Your task to perform on an android device: Show me popular games on the Play Store Image 0: 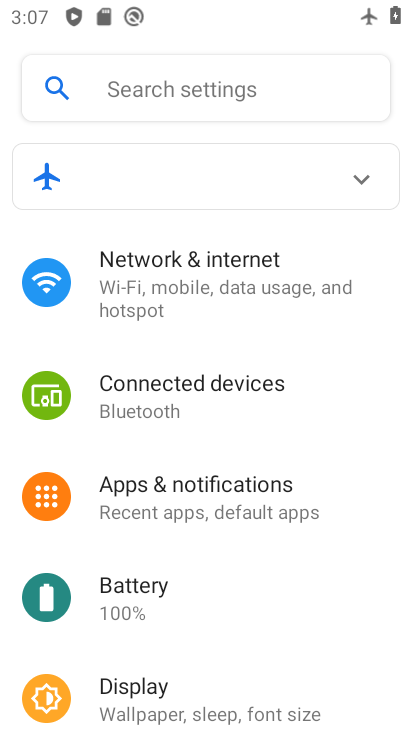
Step 0: press home button
Your task to perform on an android device: Show me popular games on the Play Store Image 1: 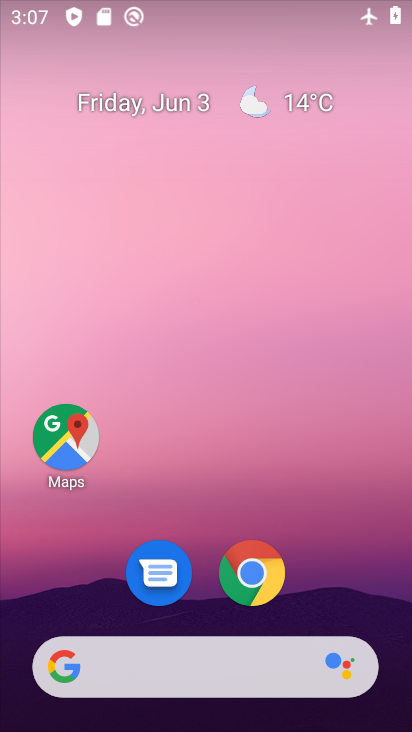
Step 1: drag from (175, 517) to (184, 454)
Your task to perform on an android device: Show me popular games on the Play Store Image 2: 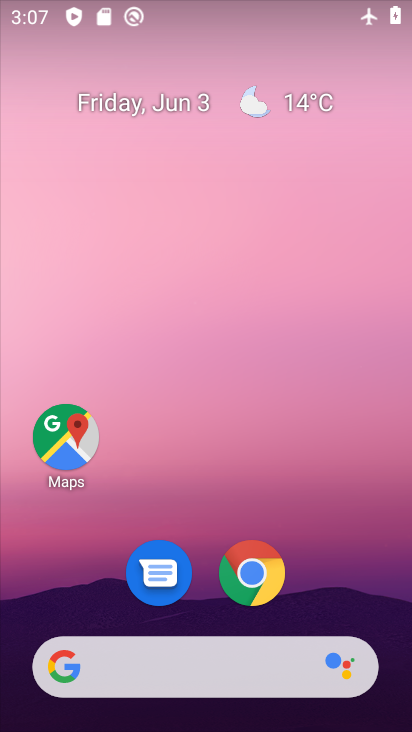
Step 2: drag from (227, 575) to (247, 339)
Your task to perform on an android device: Show me popular games on the Play Store Image 3: 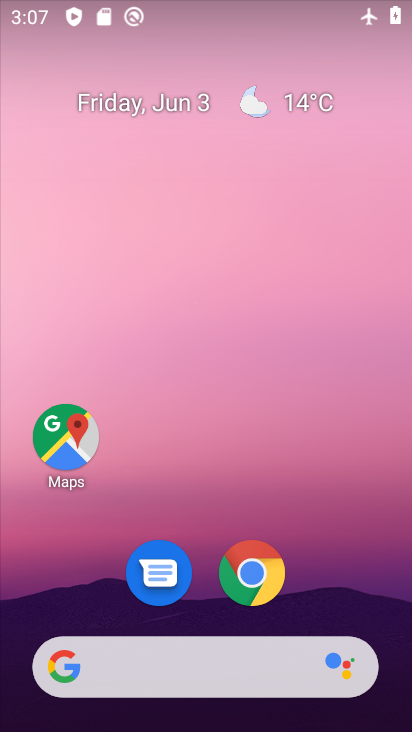
Step 3: drag from (227, 617) to (273, 54)
Your task to perform on an android device: Show me popular games on the Play Store Image 4: 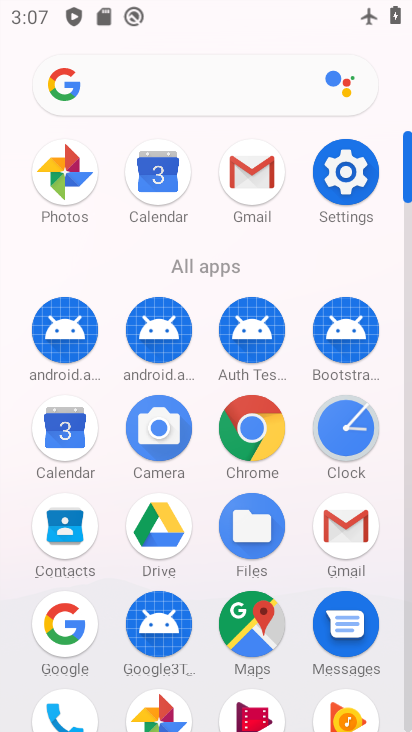
Step 4: drag from (234, 417) to (264, 251)
Your task to perform on an android device: Show me popular games on the Play Store Image 5: 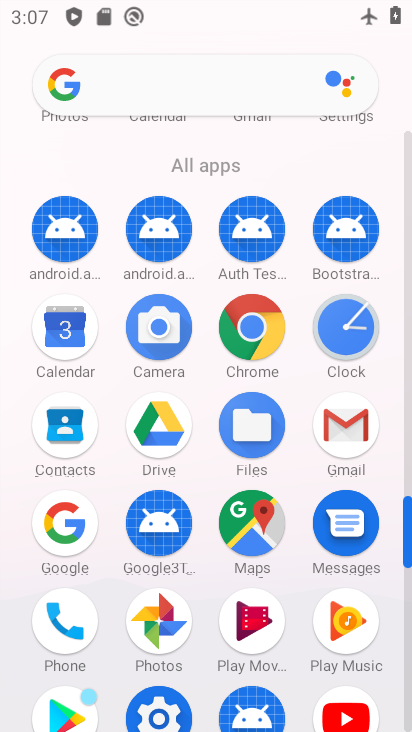
Step 5: drag from (185, 492) to (235, 226)
Your task to perform on an android device: Show me popular games on the Play Store Image 6: 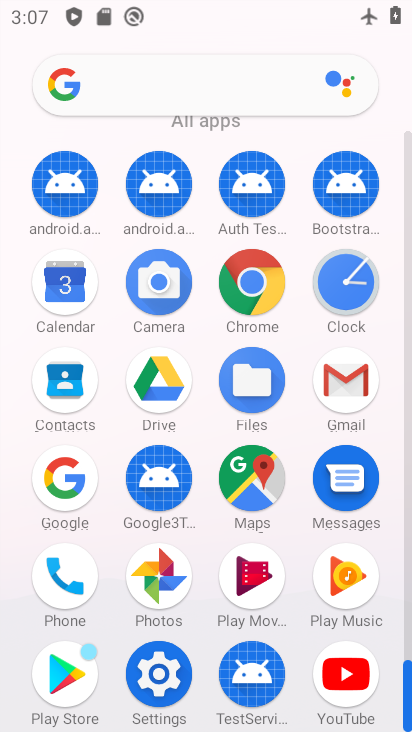
Step 6: drag from (172, 519) to (208, 295)
Your task to perform on an android device: Show me popular games on the Play Store Image 7: 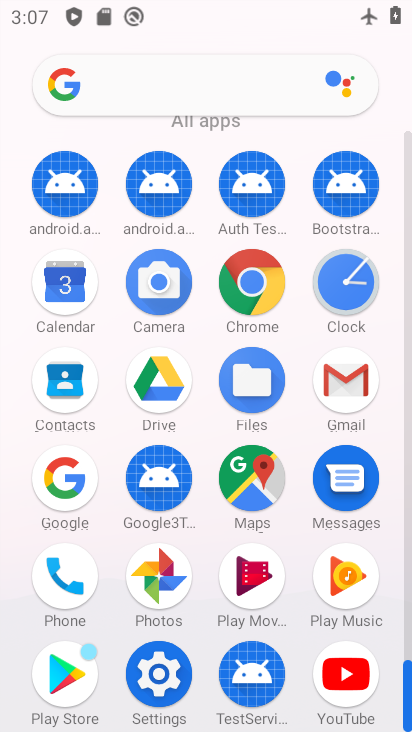
Step 7: click (70, 663)
Your task to perform on an android device: Show me popular games on the Play Store Image 8: 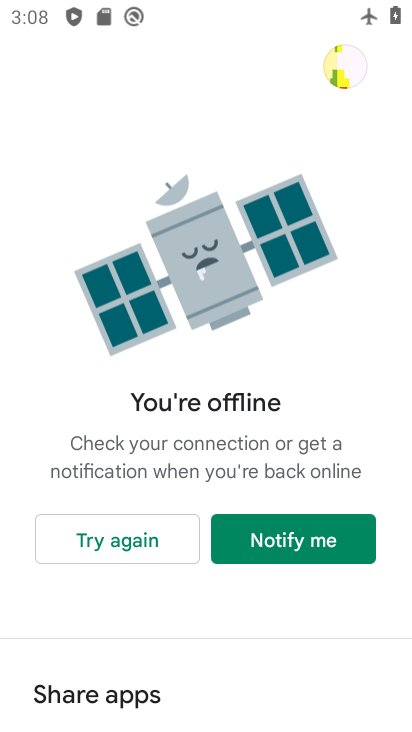
Step 8: task complete